Your task to perform on an android device: check the backup settings in the google photos Image 0: 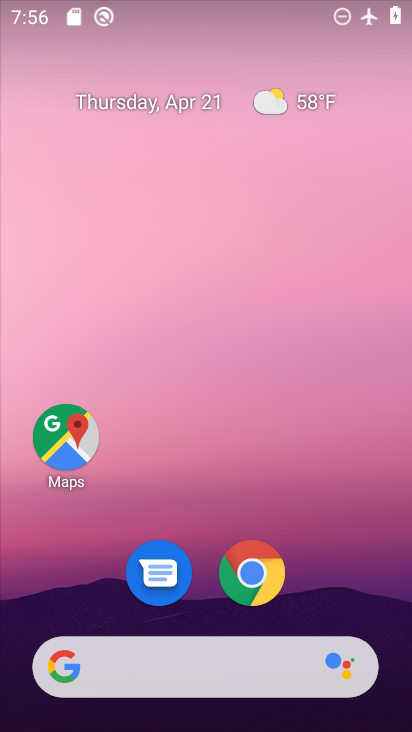
Step 0: drag from (185, 635) to (300, 173)
Your task to perform on an android device: check the backup settings in the google photos Image 1: 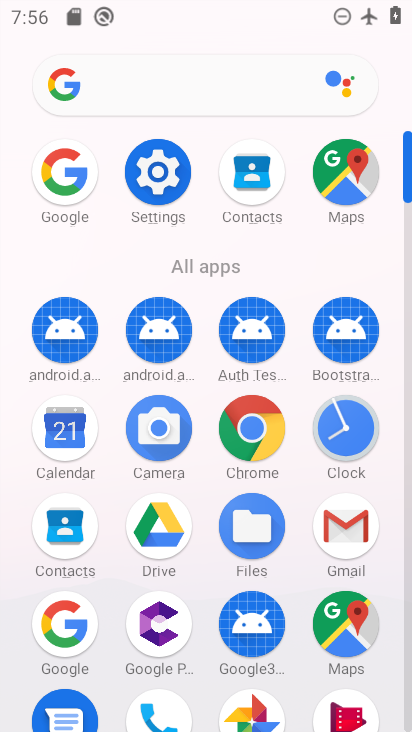
Step 1: drag from (218, 642) to (264, 283)
Your task to perform on an android device: check the backup settings in the google photos Image 2: 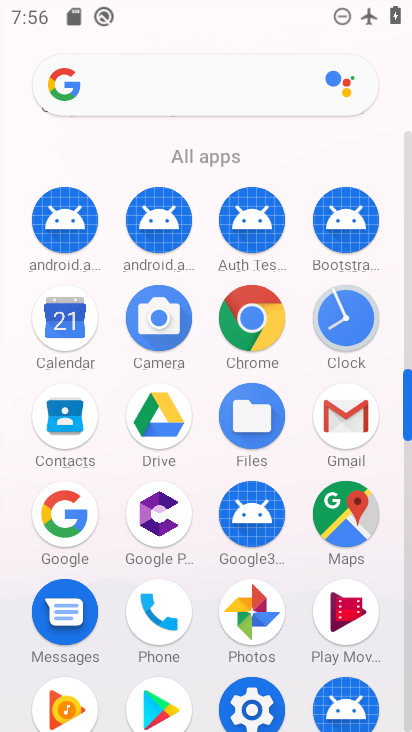
Step 2: click (256, 611)
Your task to perform on an android device: check the backup settings in the google photos Image 3: 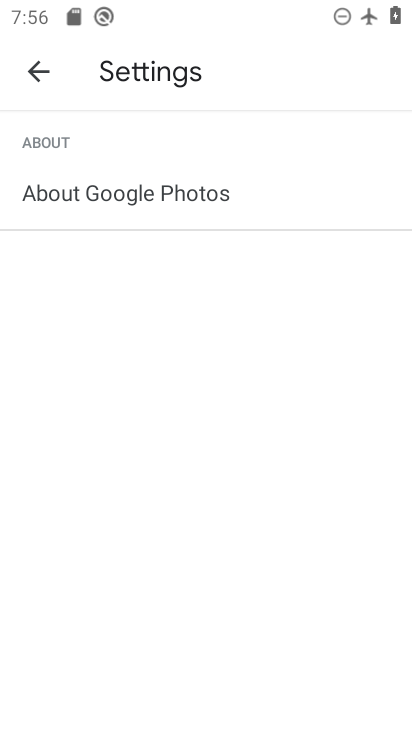
Step 3: click (35, 66)
Your task to perform on an android device: check the backup settings in the google photos Image 4: 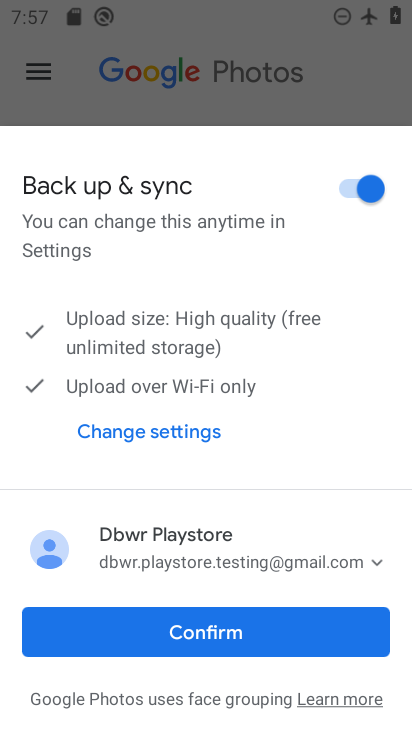
Step 4: click (218, 629)
Your task to perform on an android device: check the backup settings in the google photos Image 5: 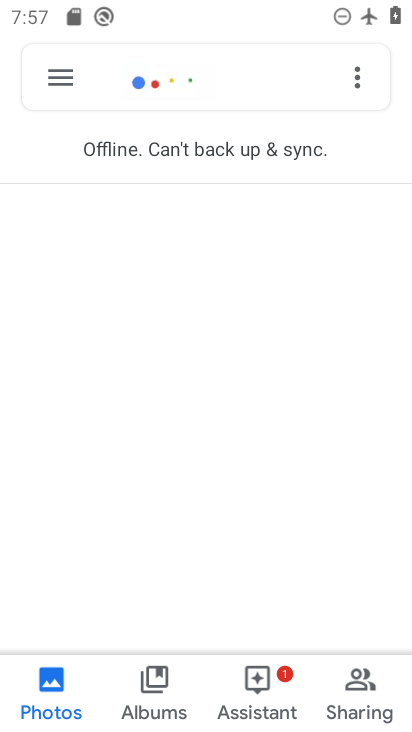
Step 5: click (68, 76)
Your task to perform on an android device: check the backup settings in the google photos Image 6: 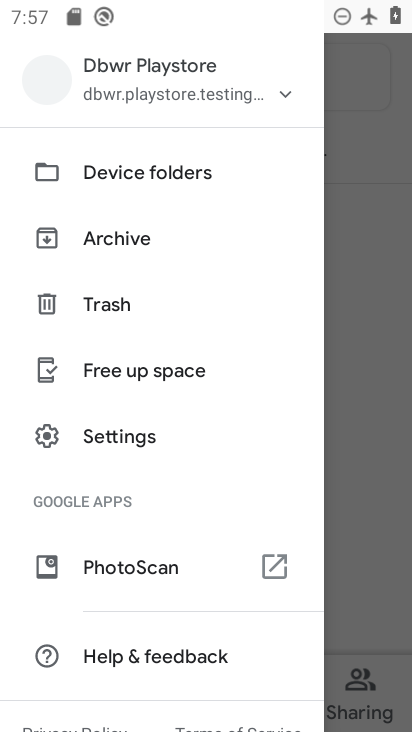
Step 6: click (103, 444)
Your task to perform on an android device: check the backup settings in the google photos Image 7: 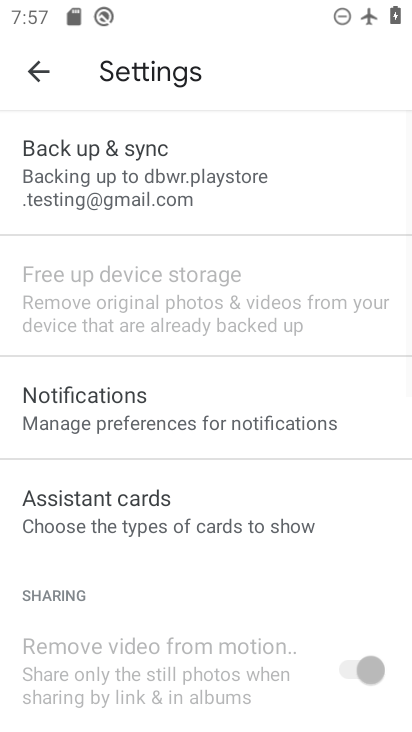
Step 7: click (118, 170)
Your task to perform on an android device: check the backup settings in the google photos Image 8: 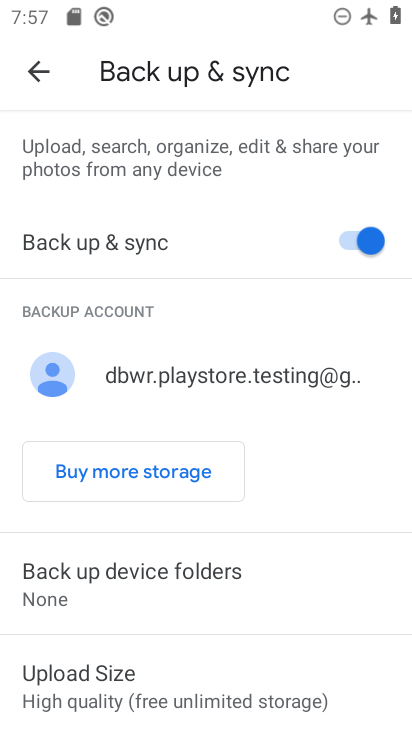
Step 8: task complete